Your task to perform on an android device: Search for the Nintendo Switch. Image 0: 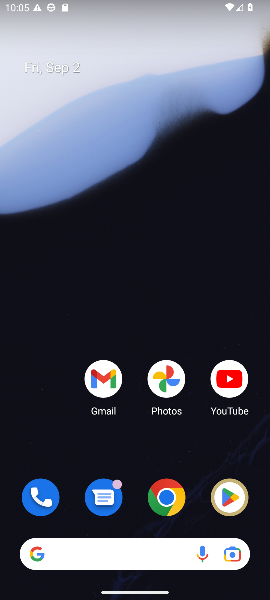
Step 0: click (166, 510)
Your task to perform on an android device: Search for the Nintendo Switch. Image 1: 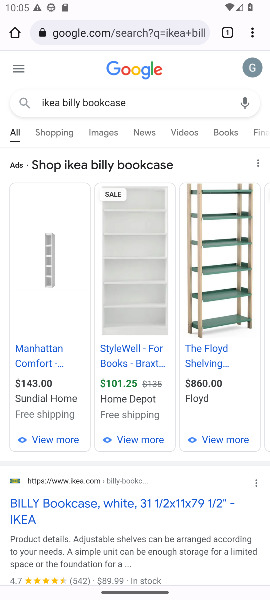
Step 1: click (134, 109)
Your task to perform on an android device: Search for the Nintendo Switch. Image 2: 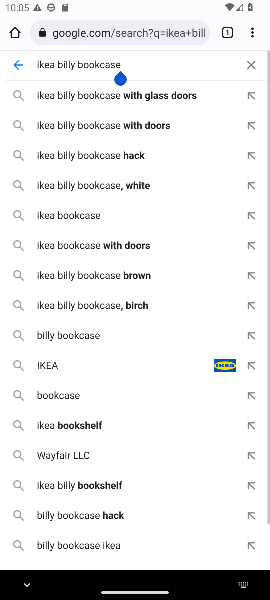
Step 2: click (256, 56)
Your task to perform on an android device: Search for the Nintendo Switch. Image 3: 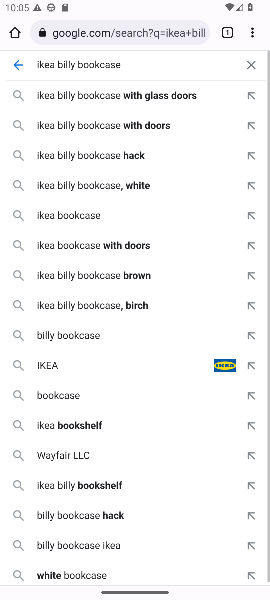
Step 3: click (247, 66)
Your task to perform on an android device: Search for the Nintendo Switch. Image 4: 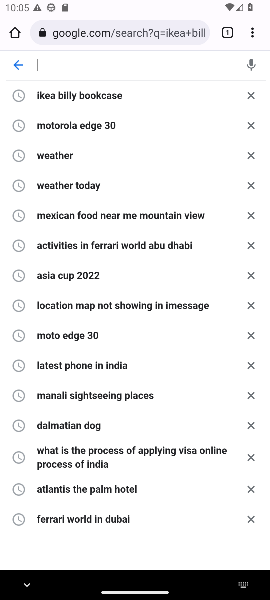
Step 4: type "Nintendo Switch"
Your task to perform on an android device: Search for the Nintendo Switch. Image 5: 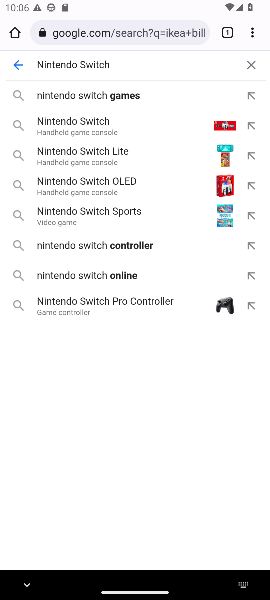
Step 5: click (122, 122)
Your task to perform on an android device: Search for the Nintendo Switch. Image 6: 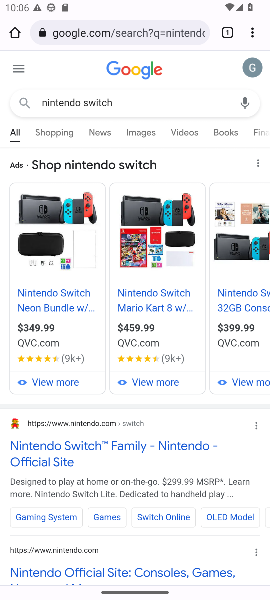
Step 6: task complete